Your task to perform on an android device: find snoozed emails in the gmail app Image 0: 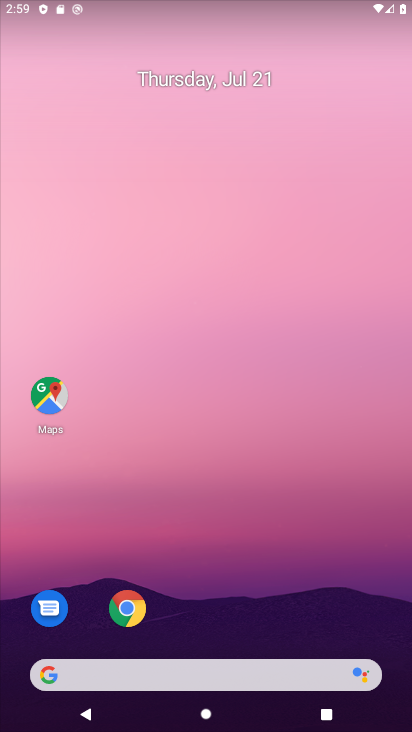
Step 0: drag from (292, 673) to (117, 9)
Your task to perform on an android device: find snoozed emails in the gmail app Image 1: 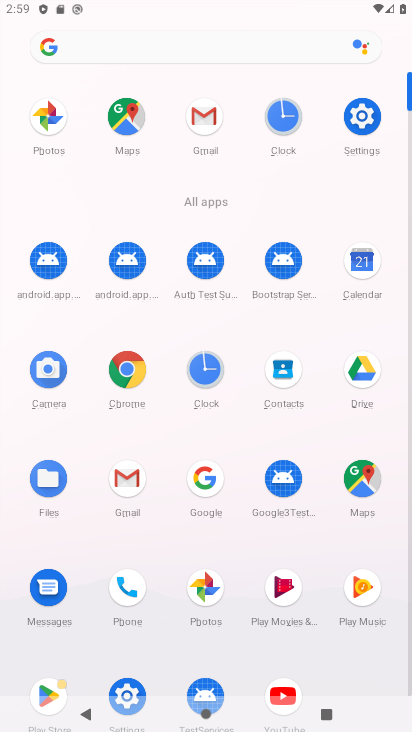
Step 1: click (141, 482)
Your task to perform on an android device: find snoozed emails in the gmail app Image 2: 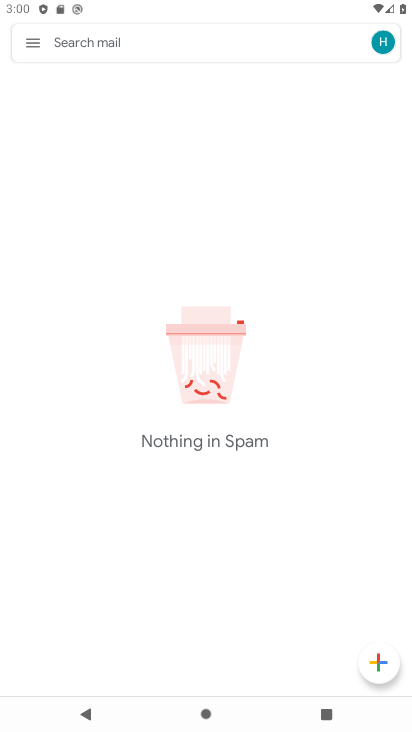
Step 2: click (26, 41)
Your task to perform on an android device: find snoozed emails in the gmail app Image 3: 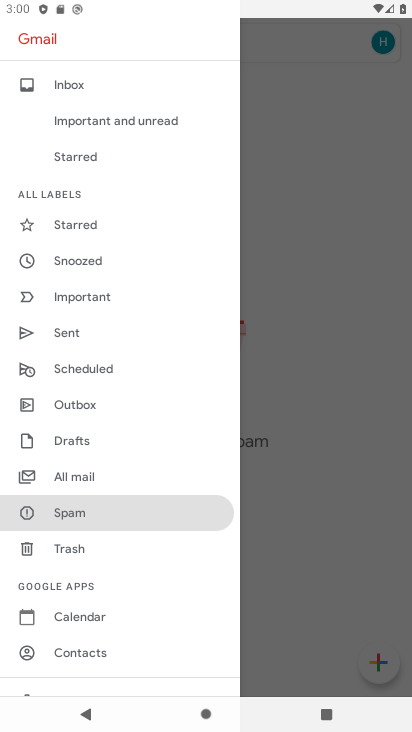
Step 3: click (99, 257)
Your task to perform on an android device: find snoozed emails in the gmail app Image 4: 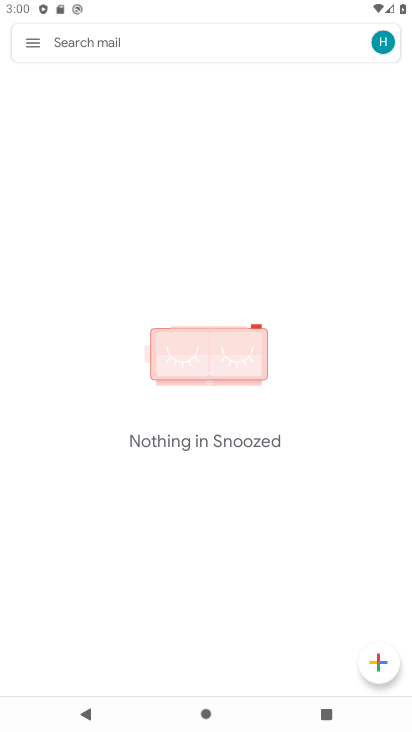
Step 4: task complete